Your task to perform on an android device: Open Chrome and go to settings Image 0: 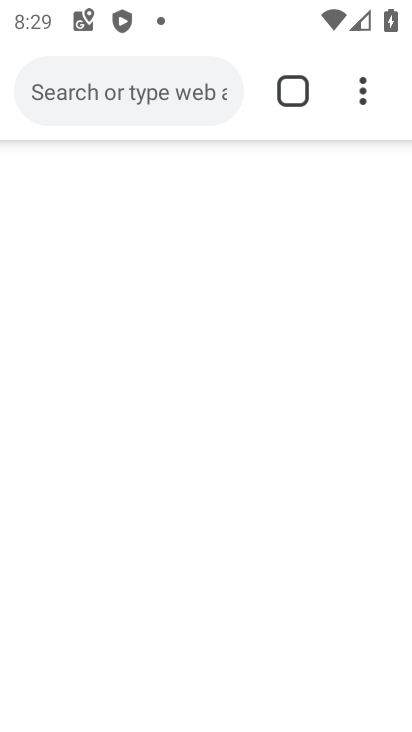
Step 0: click (68, 385)
Your task to perform on an android device: Open Chrome and go to settings Image 1: 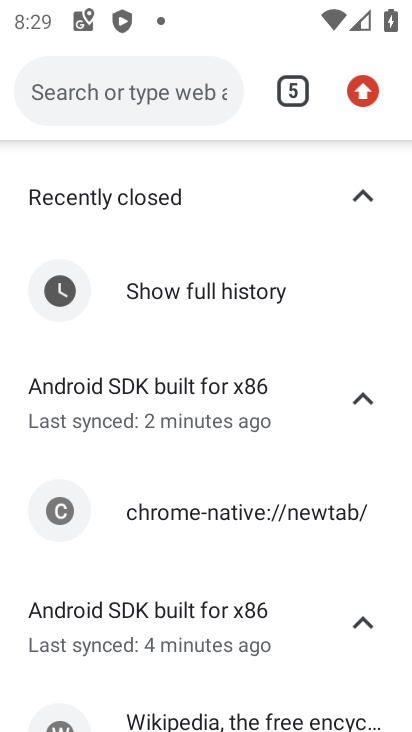
Step 1: click (352, 99)
Your task to perform on an android device: Open Chrome and go to settings Image 2: 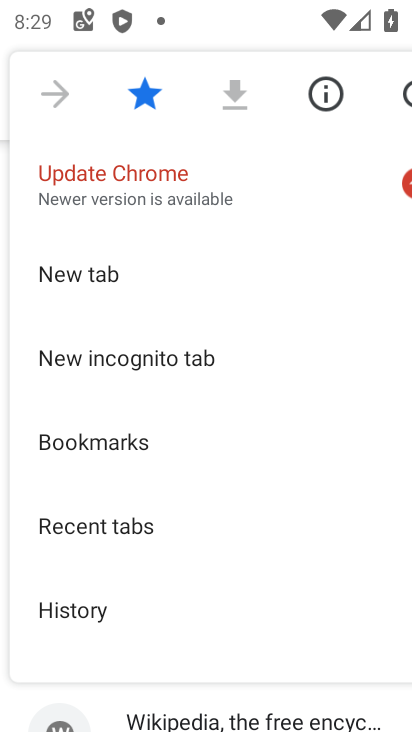
Step 2: drag from (132, 630) to (167, 211)
Your task to perform on an android device: Open Chrome and go to settings Image 3: 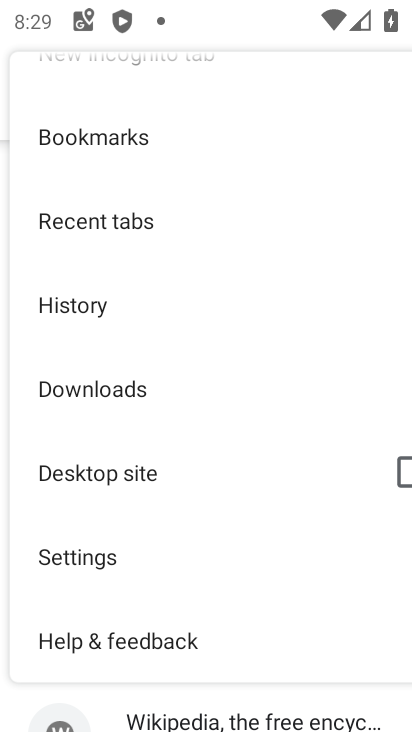
Step 3: click (116, 554)
Your task to perform on an android device: Open Chrome and go to settings Image 4: 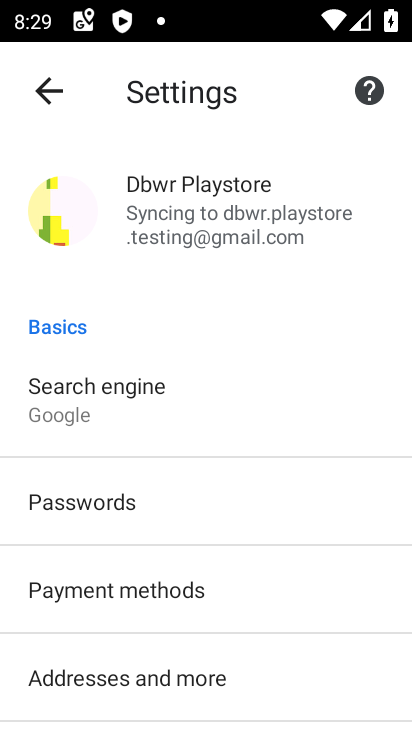
Step 4: task complete